Your task to perform on an android device: Open Chrome and go to settings Image 0: 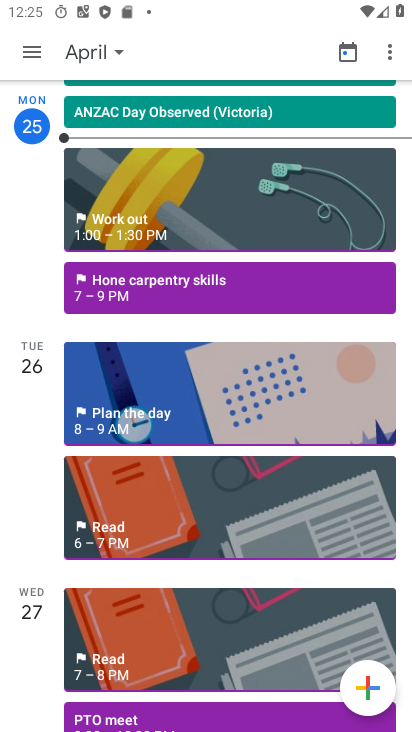
Step 0: press home button
Your task to perform on an android device: Open Chrome and go to settings Image 1: 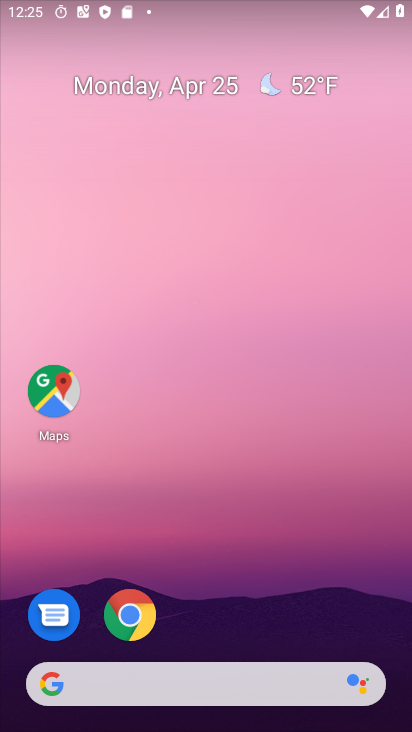
Step 1: click (130, 627)
Your task to perform on an android device: Open Chrome and go to settings Image 2: 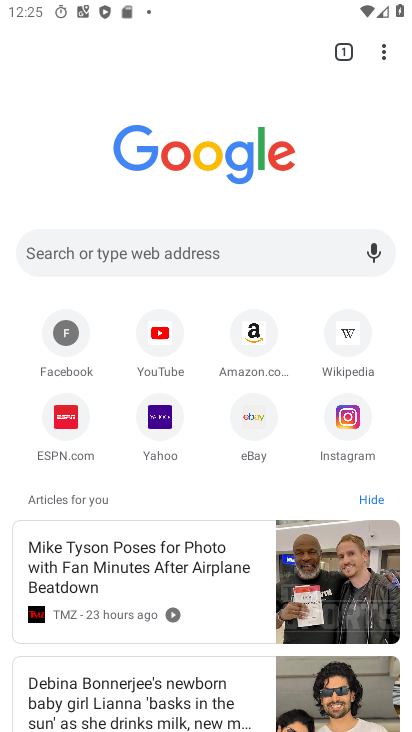
Step 2: task complete